Your task to perform on an android device: Go to Yahoo.com Image 0: 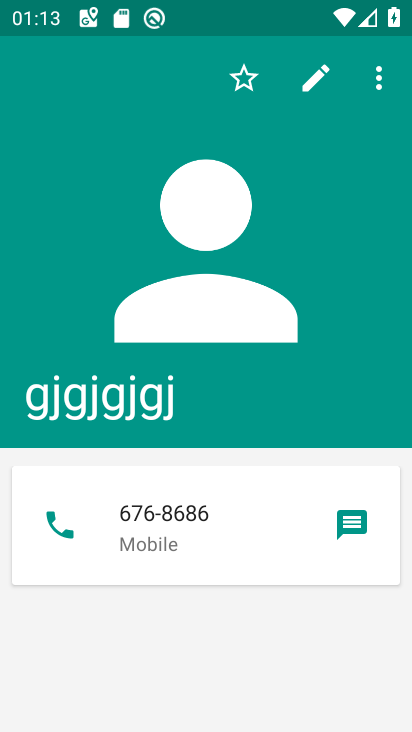
Step 0: press home button
Your task to perform on an android device: Go to Yahoo.com Image 1: 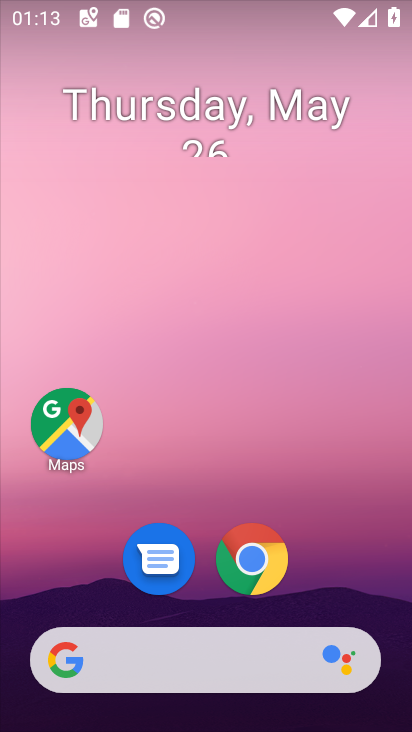
Step 1: click (219, 666)
Your task to perform on an android device: Go to Yahoo.com Image 2: 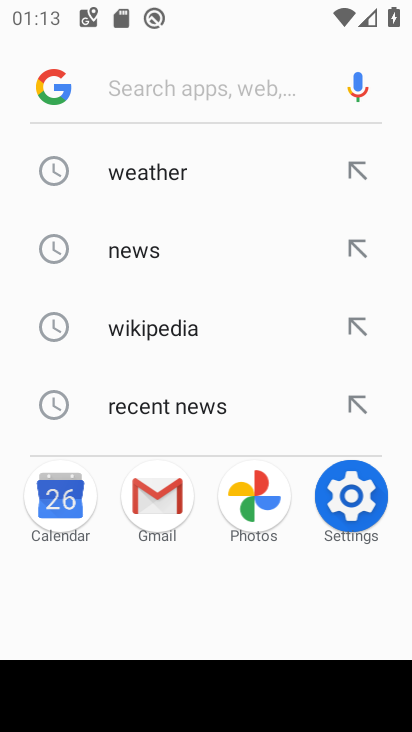
Step 2: type "Yahoo.com"
Your task to perform on an android device: Go to Yahoo.com Image 3: 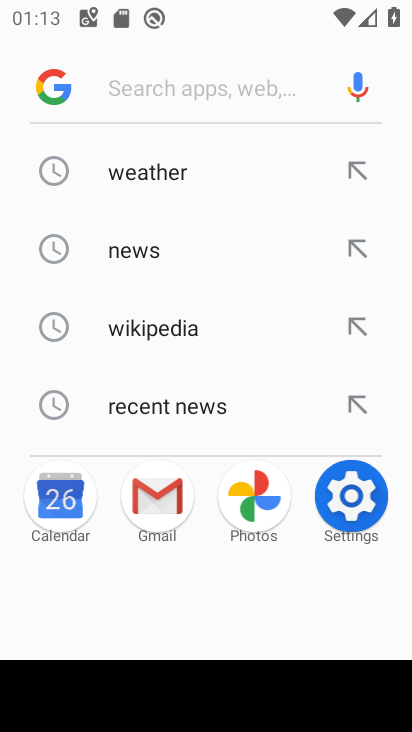
Step 3: click (152, 85)
Your task to perform on an android device: Go to Yahoo.com Image 4: 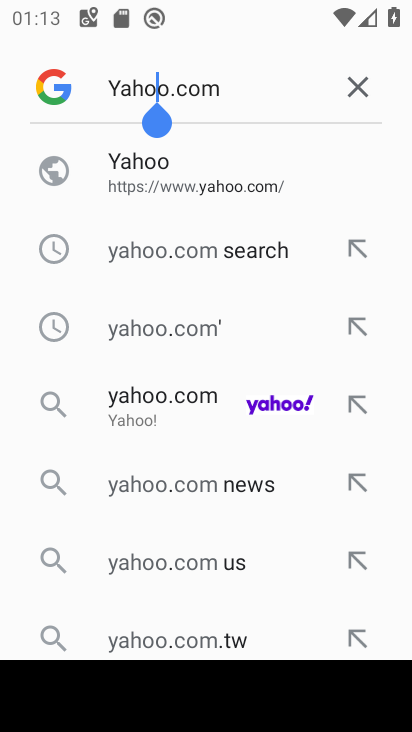
Step 4: click (209, 180)
Your task to perform on an android device: Go to Yahoo.com Image 5: 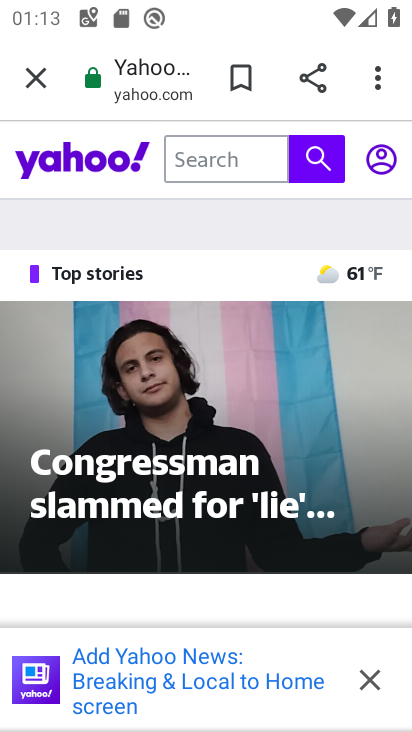
Step 5: task complete